Your task to perform on an android device: Check the weather Image 0: 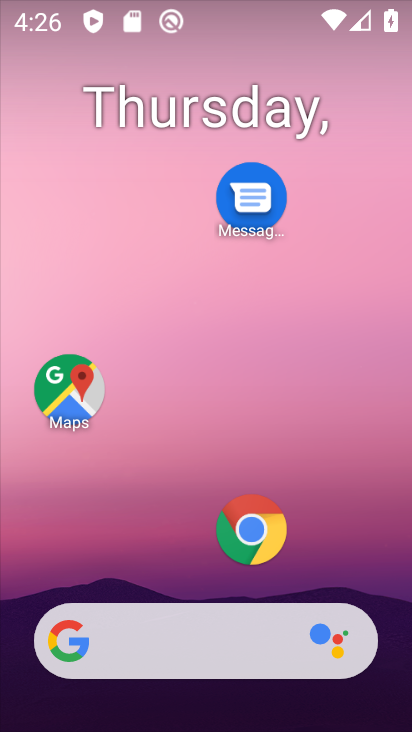
Step 0: click (215, 71)
Your task to perform on an android device: Check the weather Image 1: 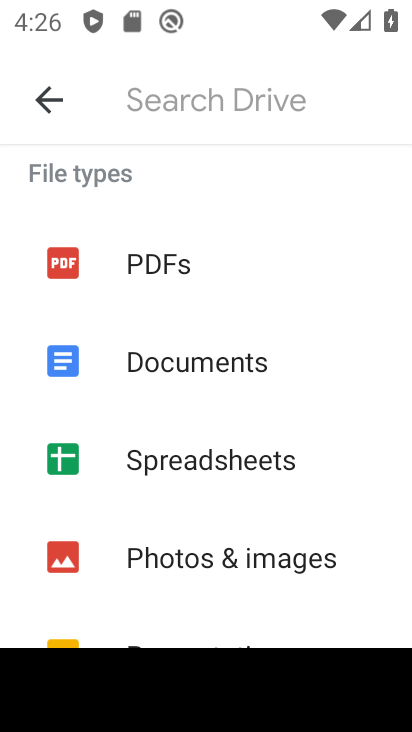
Step 1: press back button
Your task to perform on an android device: Check the weather Image 2: 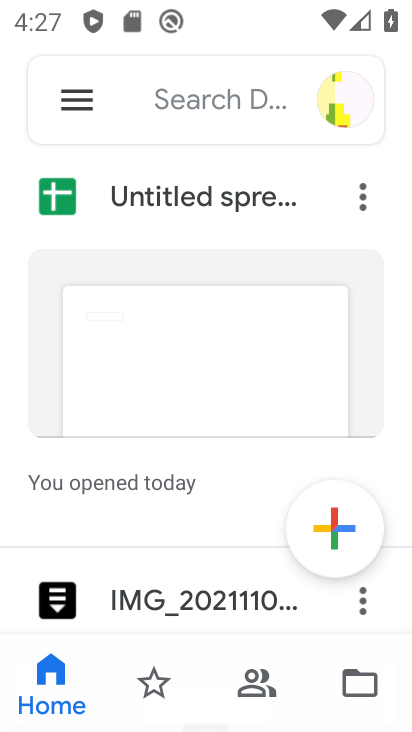
Step 2: press home button
Your task to perform on an android device: Check the weather Image 3: 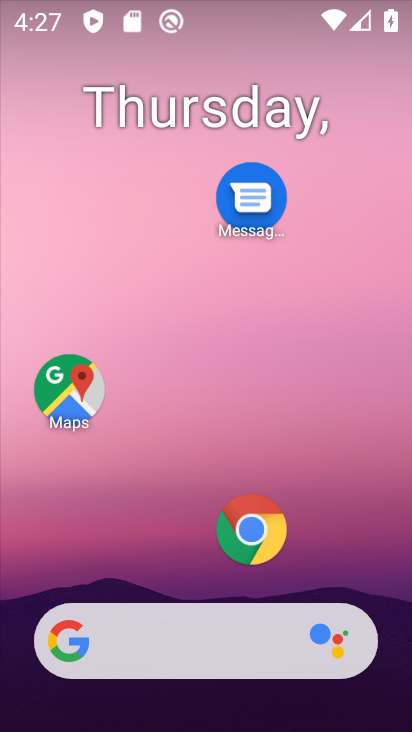
Step 3: drag from (166, 464) to (223, 1)
Your task to perform on an android device: Check the weather Image 4: 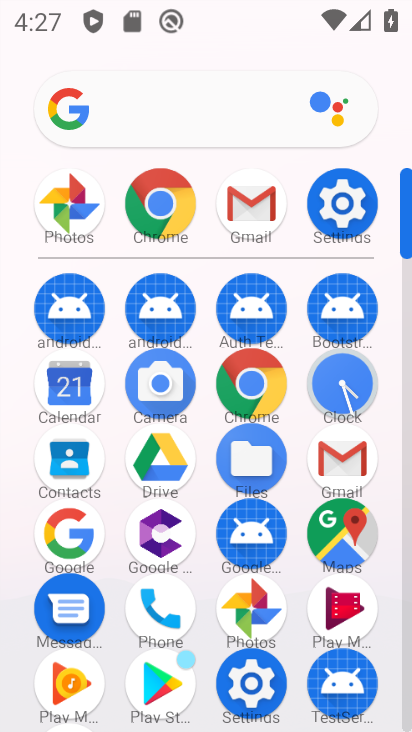
Step 4: click (200, 110)
Your task to perform on an android device: Check the weather Image 5: 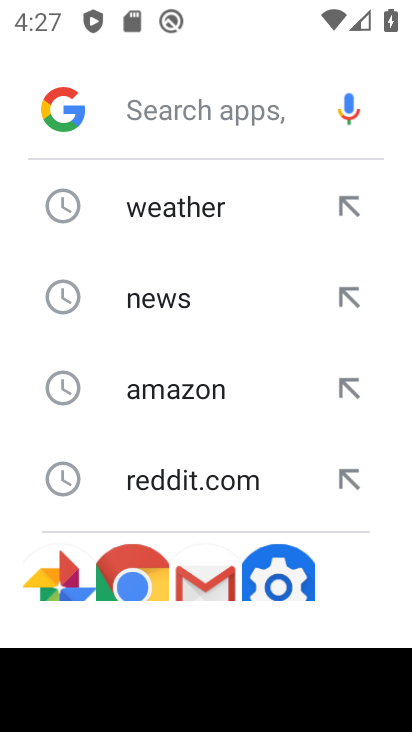
Step 5: click (188, 197)
Your task to perform on an android device: Check the weather Image 6: 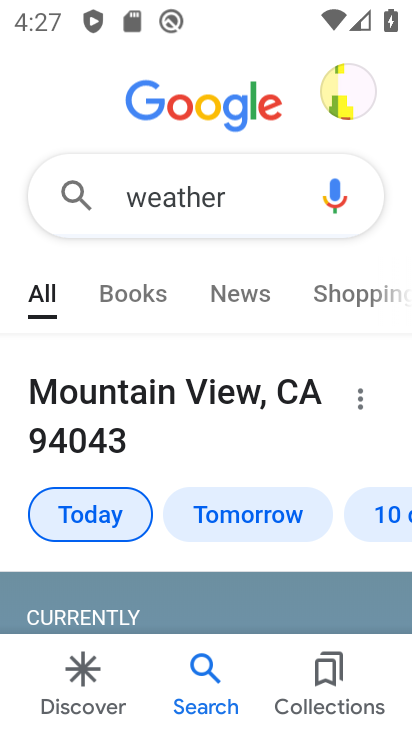
Step 6: task complete